Your task to perform on an android device: toggle notifications settings in the gmail app Image 0: 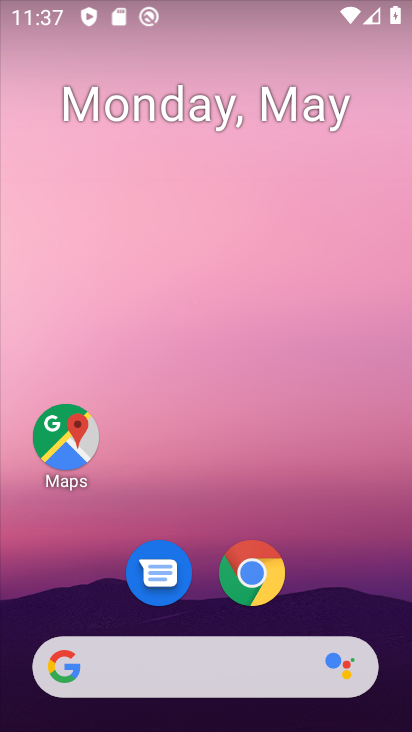
Step 0: drag from (324, 442) to (236, 83)
Your task to perform on an android device: toggle notifications settings in the gmail app Image 1: 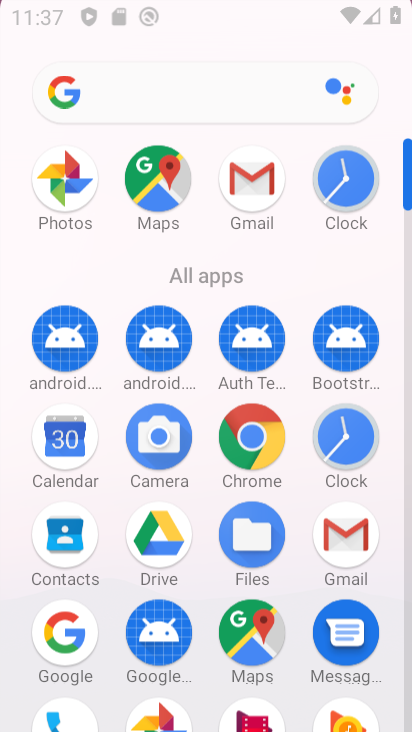
Step 1: drag from (351, 563) to (307, 192)
Your task to perform on an android device: toggle notifications settings in the gmail app Image 2: 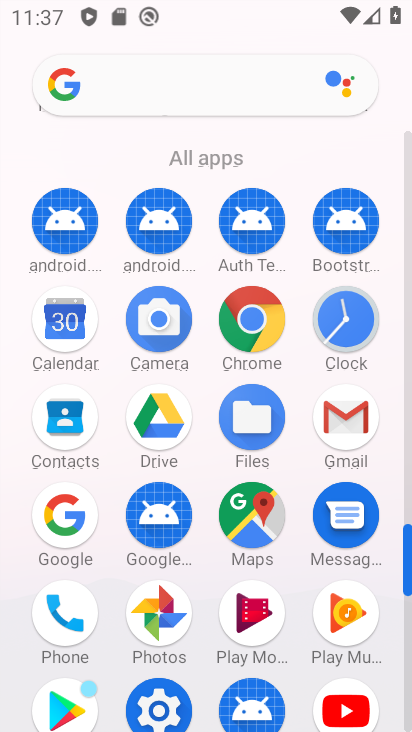
Step 2: click (252, 172)
Your task to perform on an android device: toggle notifications settings in the gmail app Image 3: 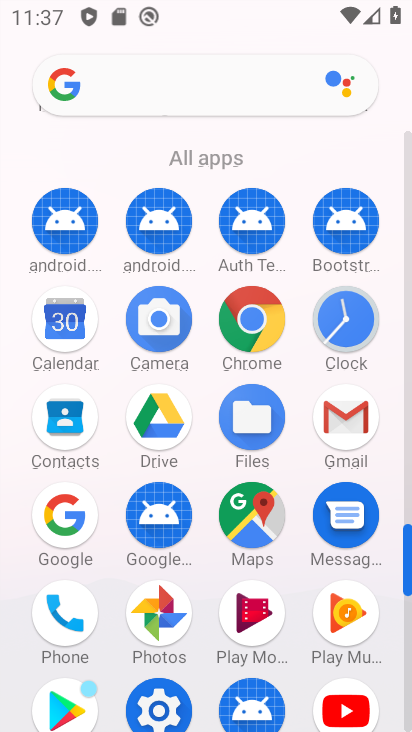
Step 3: click (362, 404)
Your task to perform on an android device: toggle notifications settings in the gmail app Image 4: 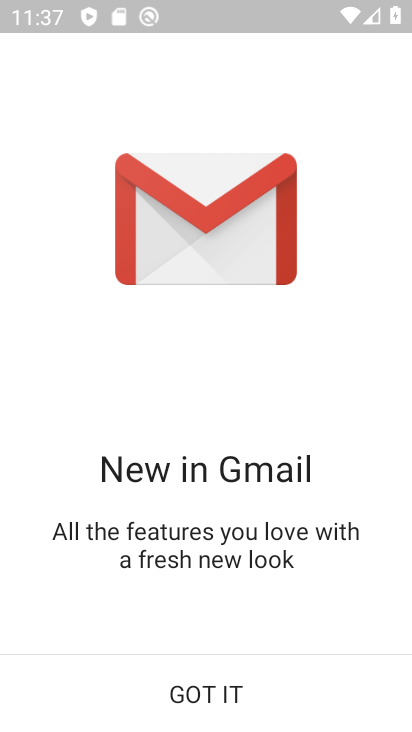
Step 4: click (216, 691)
Your task to perform on an android device: toggle notifications settings in the gmail app Image 5: 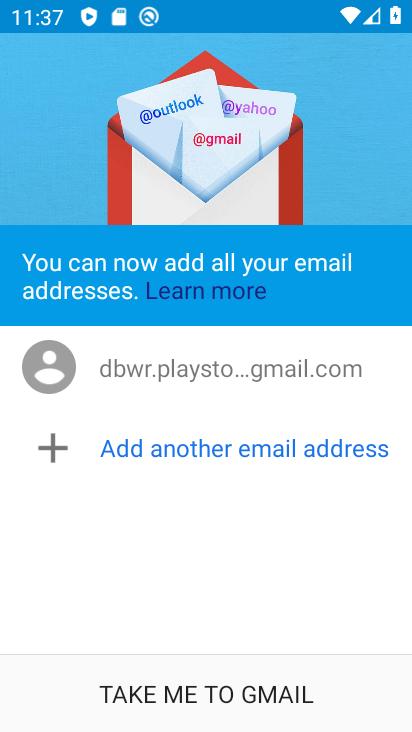
Step 5: click (169, 684)
Your task to perform on an android device: toggle notifications settings in the gmail app Image 6: 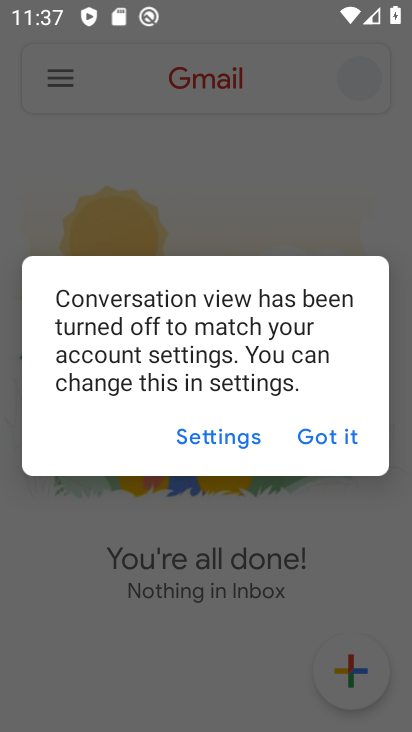
Step 6: click (335, 417)
Your task to perform on an android device: toggle notifications settings in the gmail app Image 7: 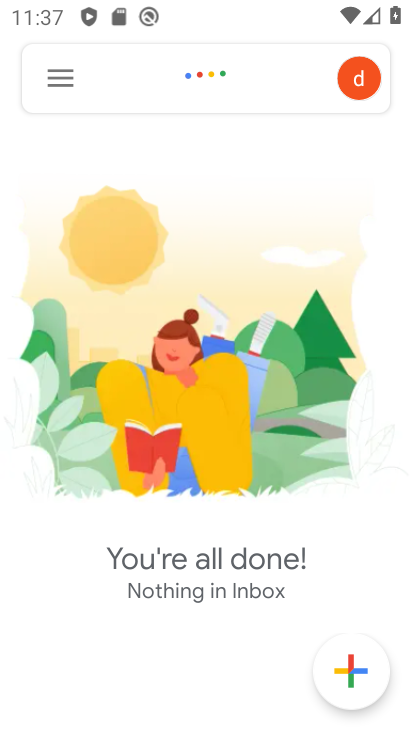
Step 7: click (58, 73)
Your task to perform on an android device: toggle notifications settings in the gmail app Image 8: 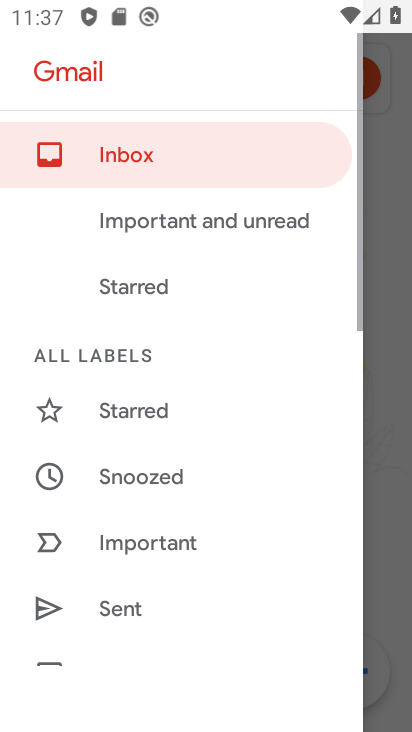
Step 8: drag from (160, 544) to (181, 204)
Your task to perform on an android device: toggle notifications settings in the gmail app Image 9: 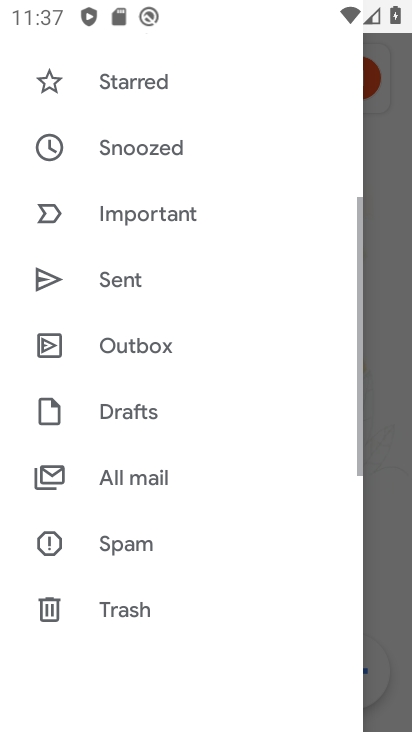
Step 9: drag from (186, 568) to (205, 266)
Your task to perform on an android device: toggle notifications settings in the gmail app Image 10: 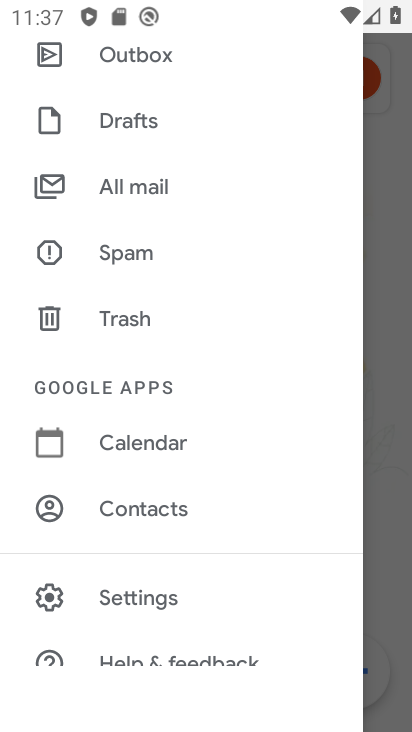
Step 10: click (154, 603)
Your task to perform on an android device: toggle notifications settings in the gmail app Image 11: 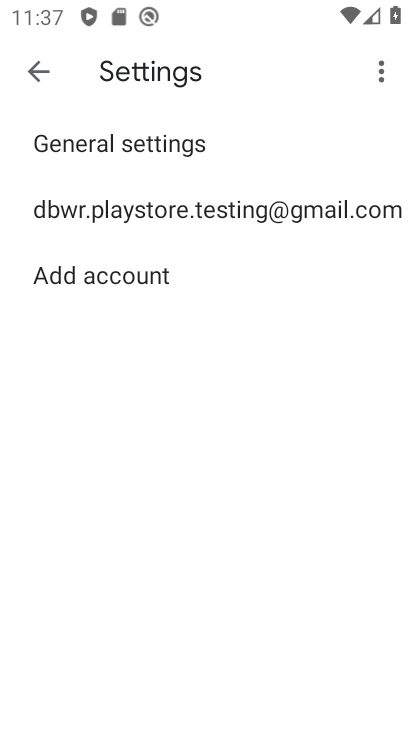
Step 11: click (100, 206)
Your task to perform on an android device: toggle notifications settings in the gmail app Image 12: 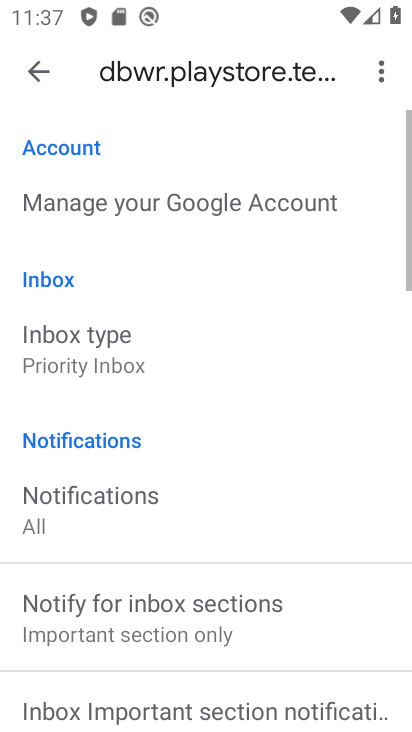
Step 12: click (102, 523)
Your task to perform on an android device: toggle notifications settings in the gmail app Image 13: 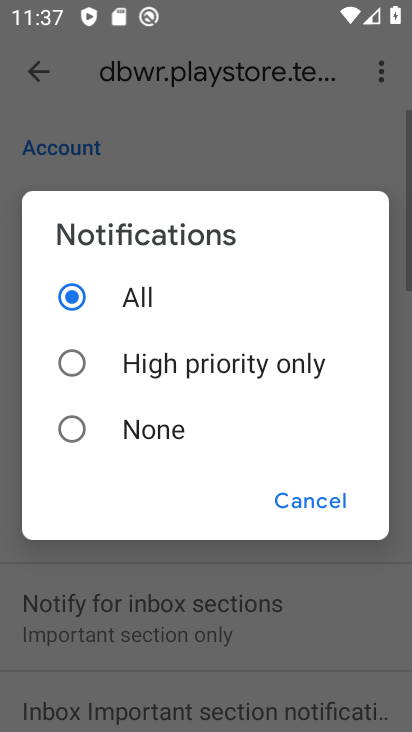
Step 13: click (146, 354)
Your task to perform on an android device: toggle notifications settings in the gmail app Image 14: 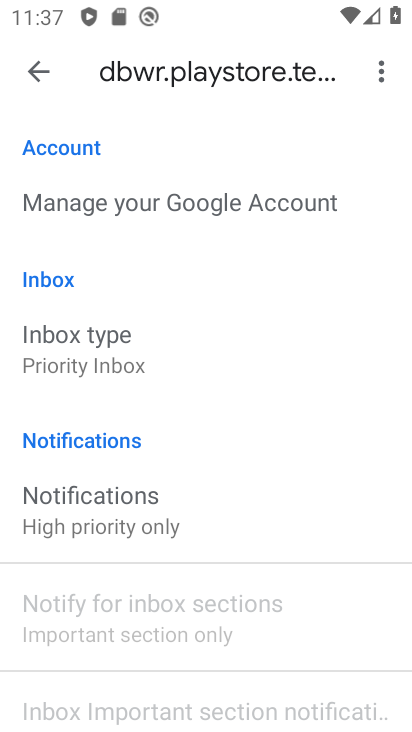
Step 14: task complete